Your task to perform on an android device: Play the last video I watched on Youtube Image 0: 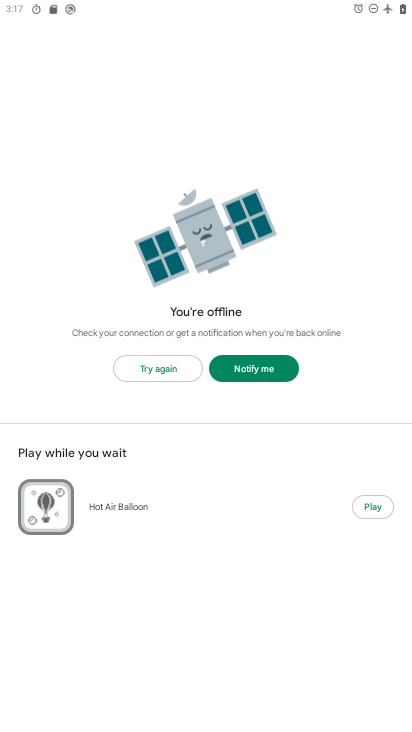
Step 0: press home button
Your task to perform on an android device: Play the last video I watched on Youtube Image 1: 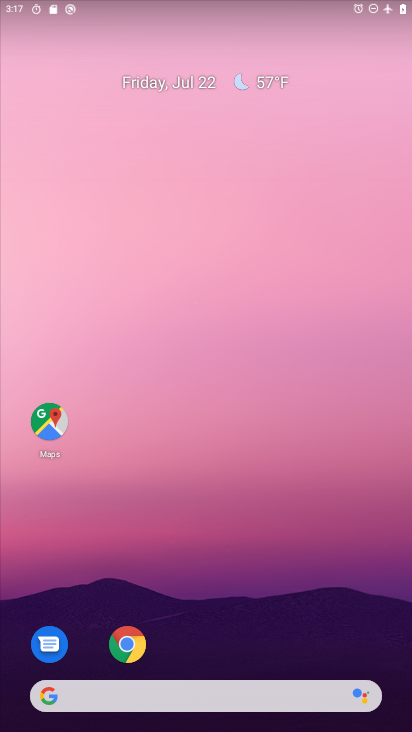
Step 1: drag from (216, 623) to (228, 114)
Your task to perform on an android device: Play the last video I watched on Youtube Image 2: 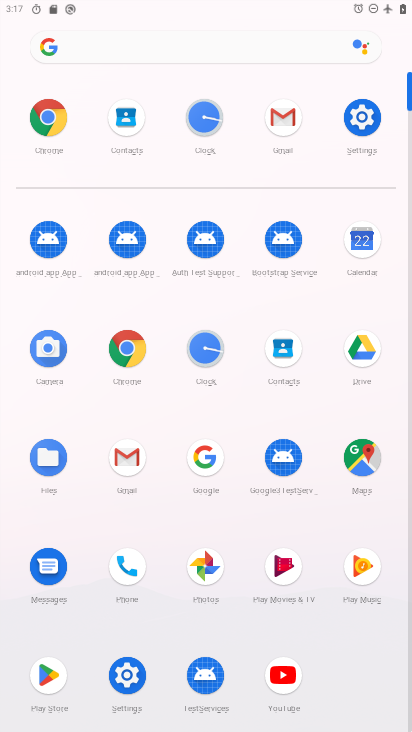
Step 2: click (278, 677)
Your task to perform on an android device: Play the last video I watched on Youtube Image 3: 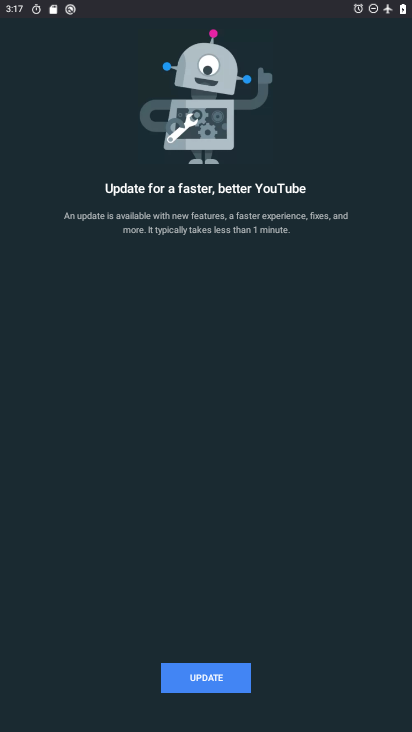
Step 3: click (225, 669)
Your task to perform on an android device: Play the last video I watched on Youtube Image 4: 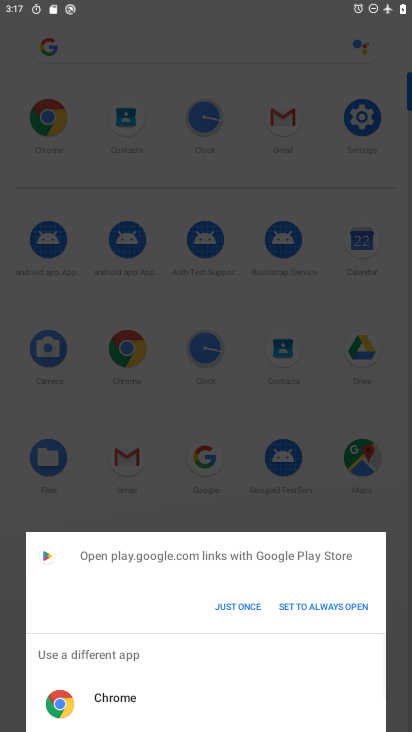
Step 4: click (223, 613)
Your task to perform on an android device: Play the last video I watched on Youtube Image 5: 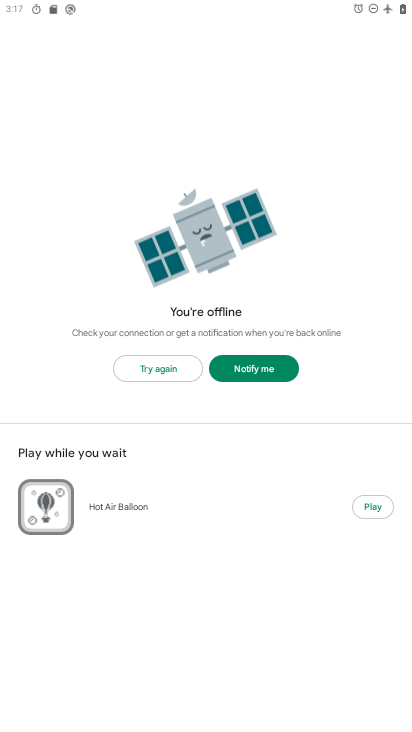
Step 5: task complete